Your task to perform on an android device: Go to Maps Image 0: 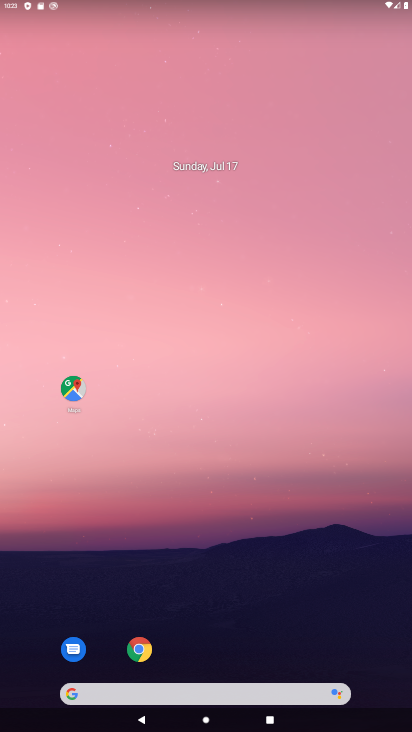
Step 0: click (69, 392)
Your task to perform on an android device: Go to Maps Image 1: 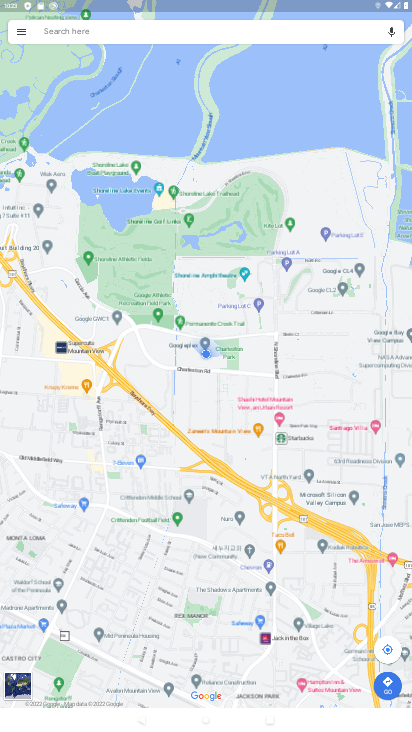
Step 1: task complete